Your task to perform on an android device: turn off notifications in google photos Image 0: 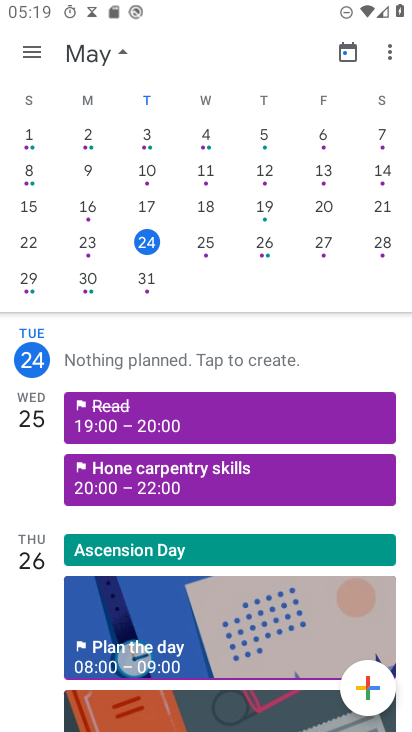
Step 0: press back button
Your task to perform on an android device: turn off notifications in google photos Image 1: 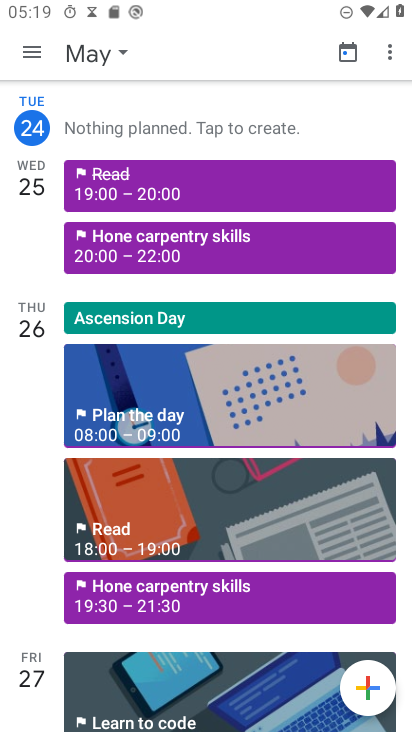
Step 1: press back button
Your task to perform on an android device: turn off notifications in google photos Image 2: 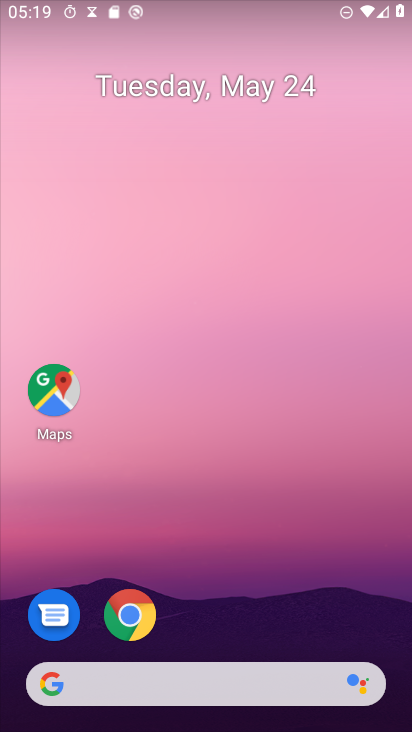
Step 2: drag from (256, 617) to (321, 13)
Your task to perform on an android device: turn off notifications in google photos Image 3: 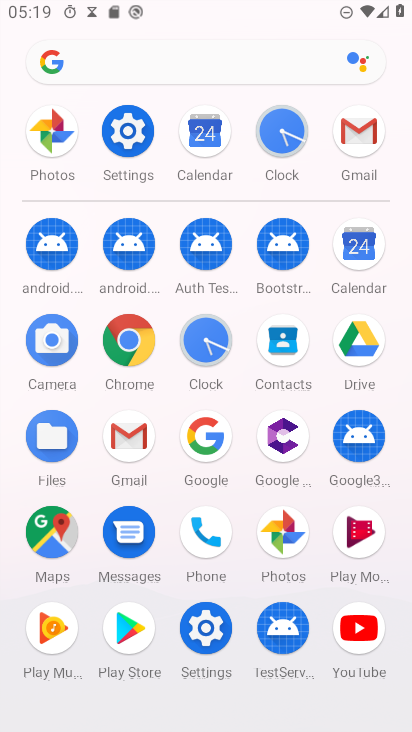
Step 3: click (282, 532)
Your task to perform on an android device: turn off notifications in google photos Image 4: 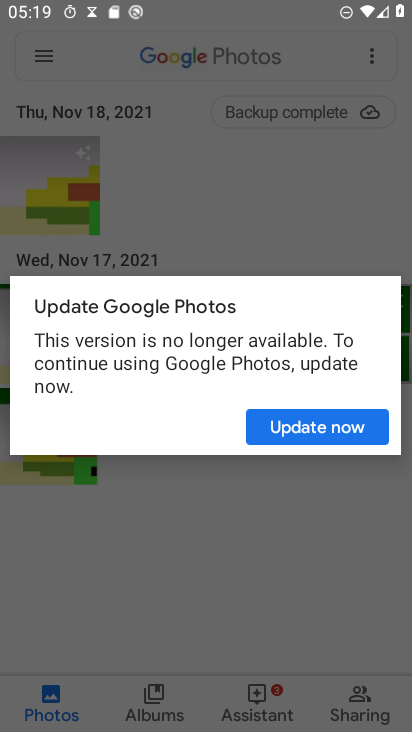
Step 4: click (273, 417)
Your task to perform on an android device: turn off notifications in google photos Image 5: 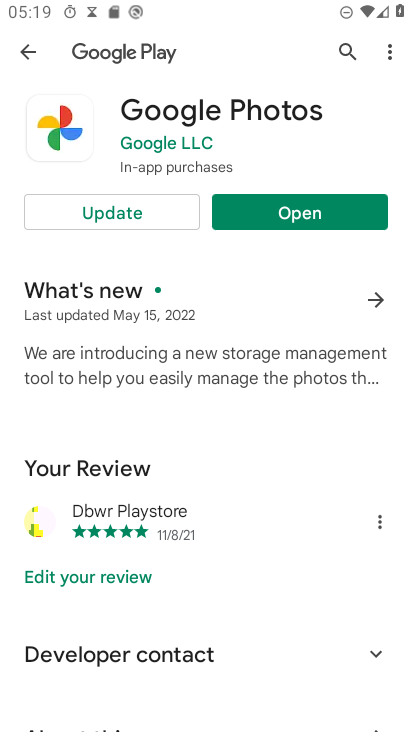
Step 5: press home button
Your task to perform on an android device: turn off notifications in google photos Image 6: 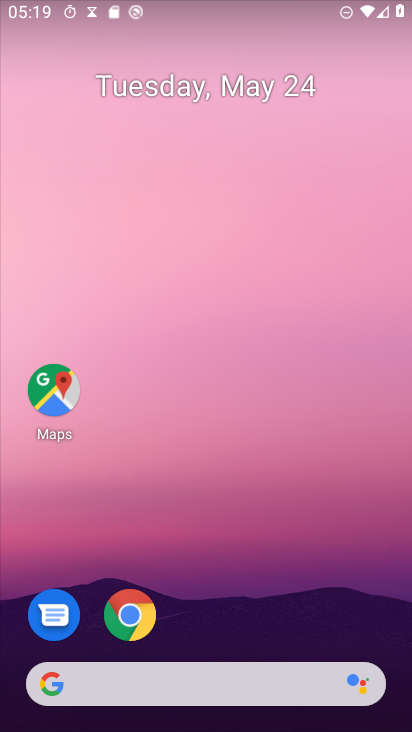
Step 6: drag from (255, 531) to (322, 60)
Your task to perform on an android device: turn off notifications in google photos Image 7: 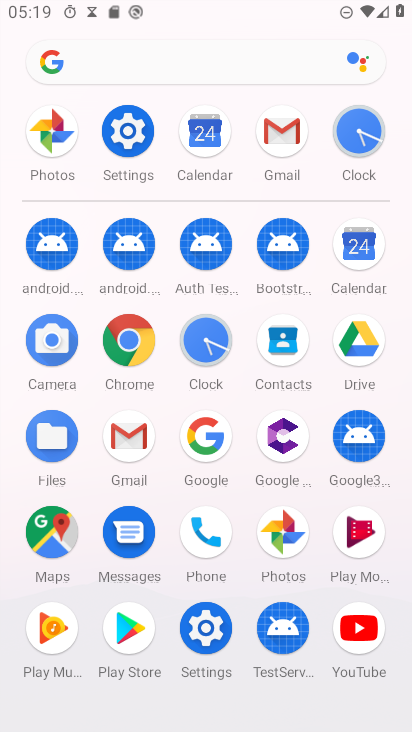
Step 7: click (287, 533)
Your task to perform on an android device: turn off notifications in google photos Image 8: 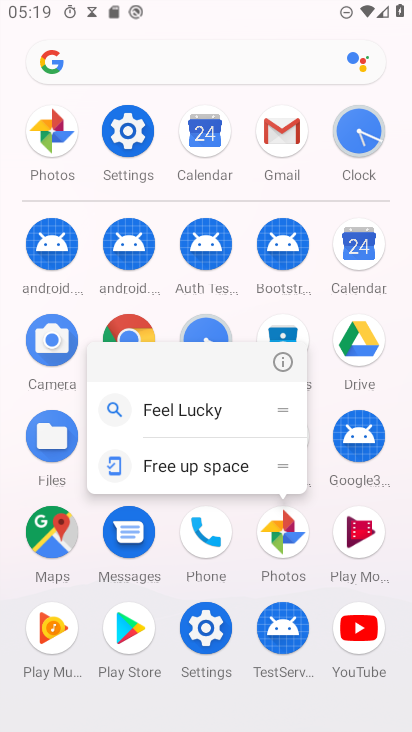
Step 8: click (280, 365)
Your task to perform on an android device: turn off notifications in google photos Image 9: 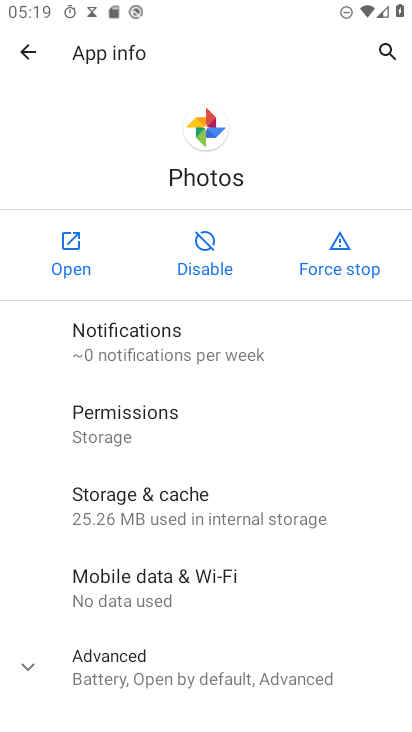
Step 9: click (117, 353)
Your task to perform on an android device: turn off notifications in google photos Image 10: 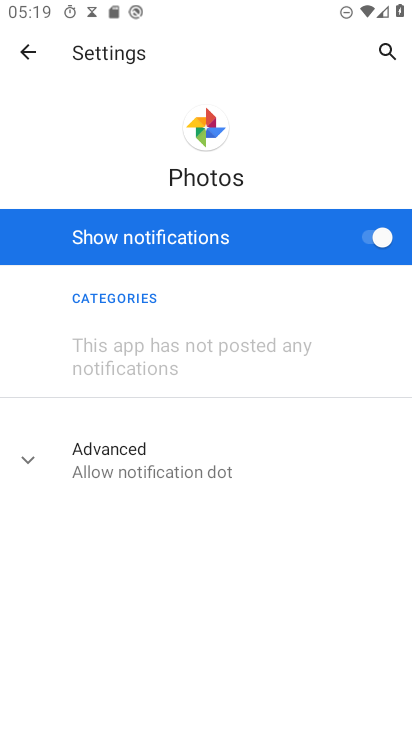
Step 10: click (377, 235)
Your task to perform on an android device: turn off notifications in google photos Image 11: 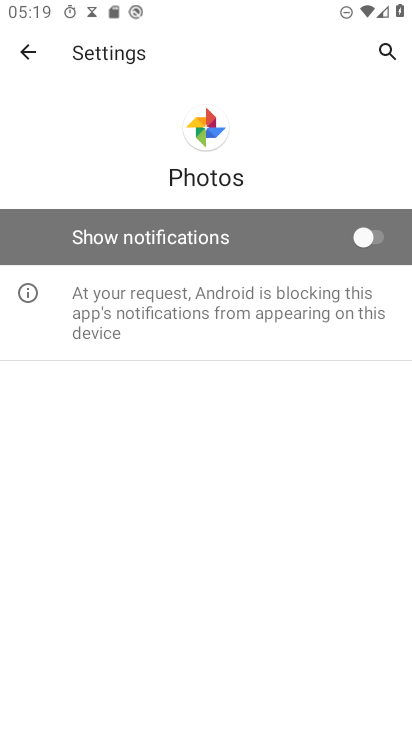
Step 11: task complete